Your task to perform on an android device: turn on bluetooth scan Image 0: 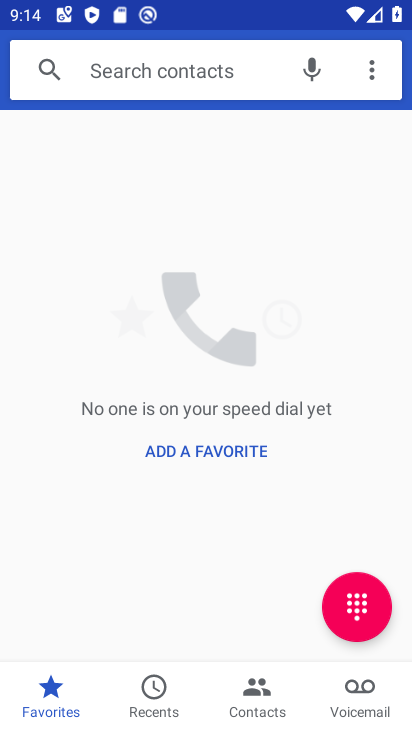
Step 0: press home button
Your task to perform on an android device: turn on bluetooth scan Image 1: 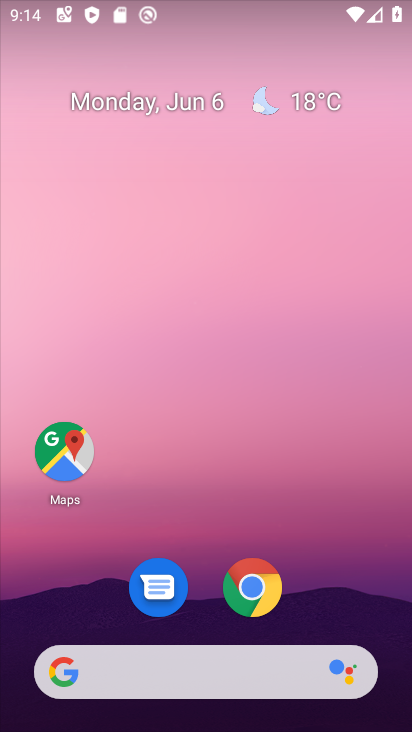
Step 1: drag from (337, 623) to (256, 239)
Your task to perform on an android device: turn on bluetooth scan Image 2: 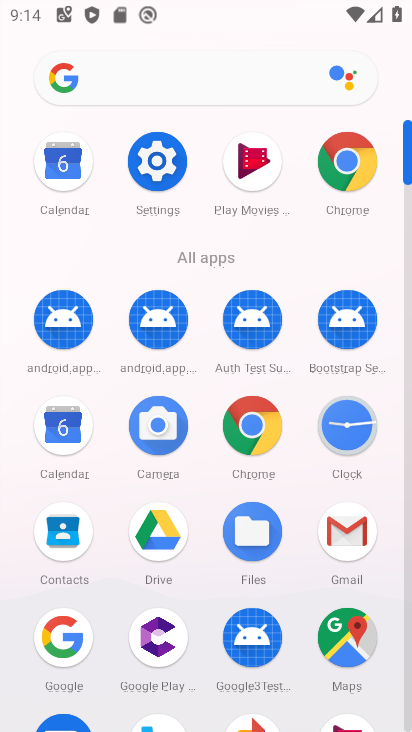
Step 2: click (151, 157)
Your task to perform on an android device: turn on bluetooth scan Image 3: 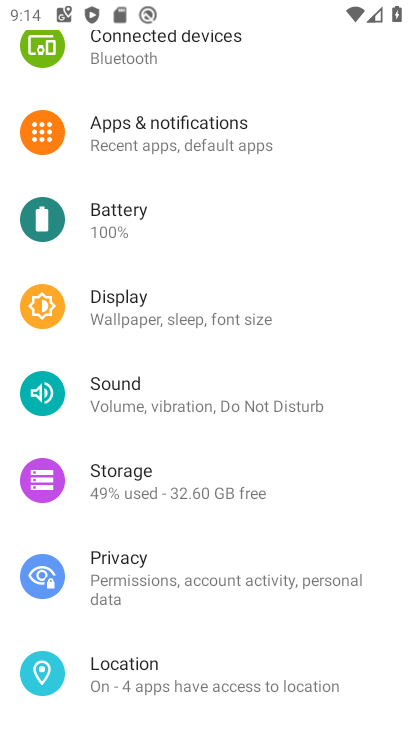
Step 3: drag from (200, 417) to (247, 167)
Your task to perform on an android device: turn on bluetooth scan Image 4: 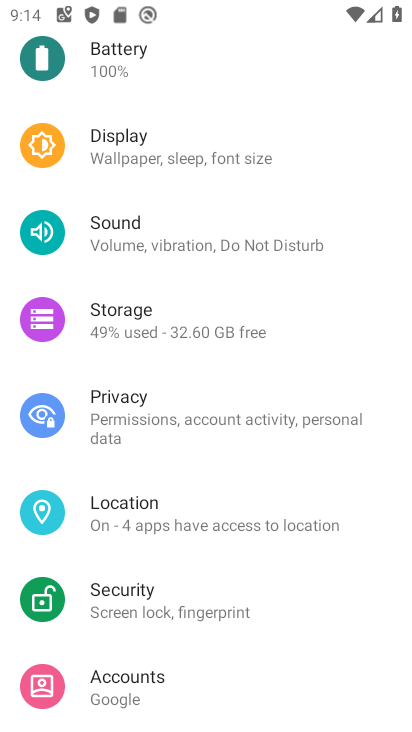
Step 4: click (169, 521)
Your task to perform on an android device: turn on bluetooth scan Image 5: 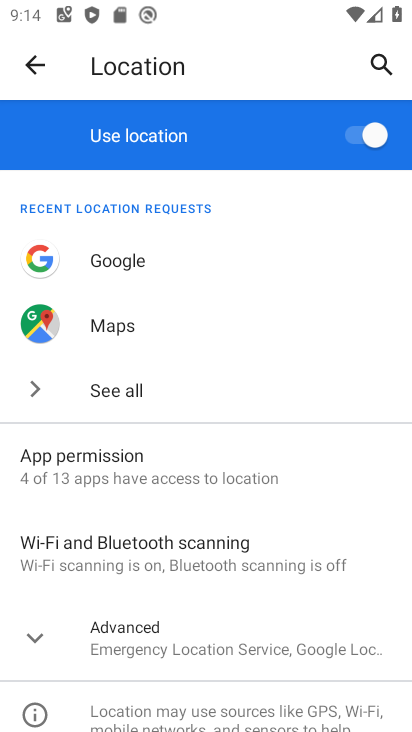
Step 5: click (189, 564)
Your task to perform on an android device: turn on bluetooth scan Image 6: 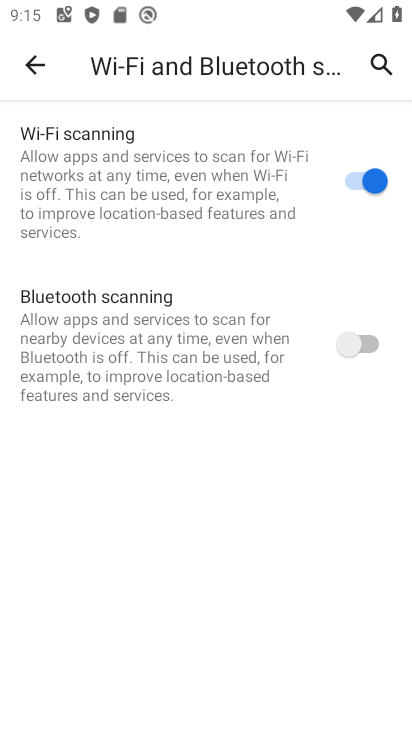
Step 6: click (330, 334)
Your task to perform on an android device: turn on bluetooth scan Image 7: 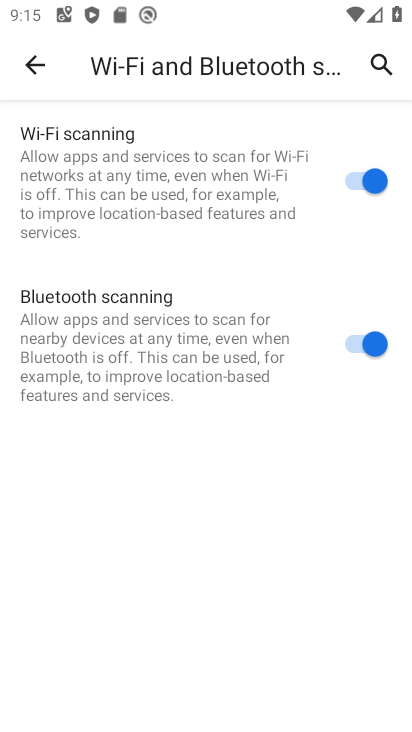
Step 7: task complete